Your task to perform on an android device: turn vacation reply on in the gmail app Image 0: 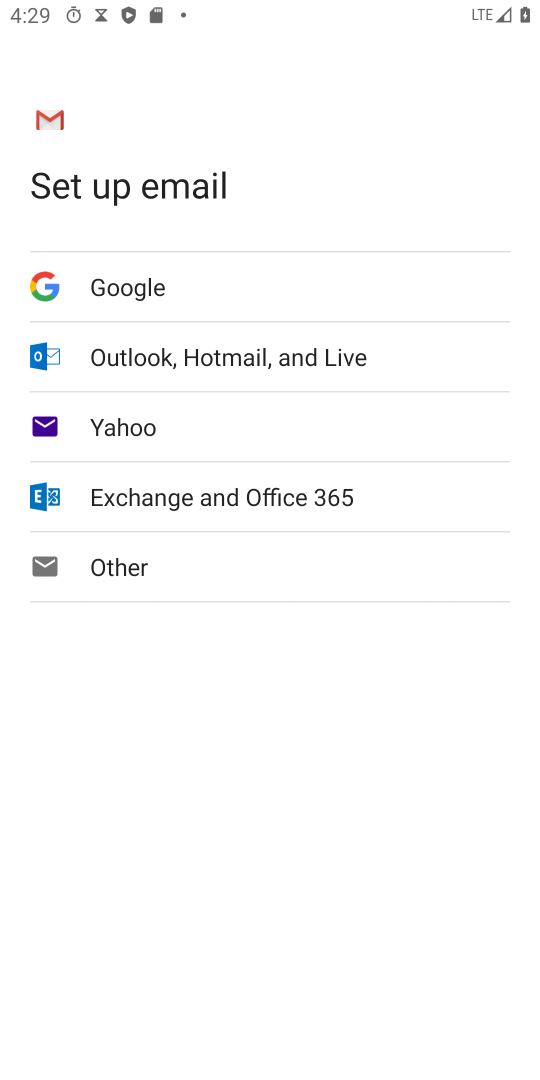
Step 0: press home button
Your task to perform on an android device: turn vacation reply on in the gmail app Image 1: 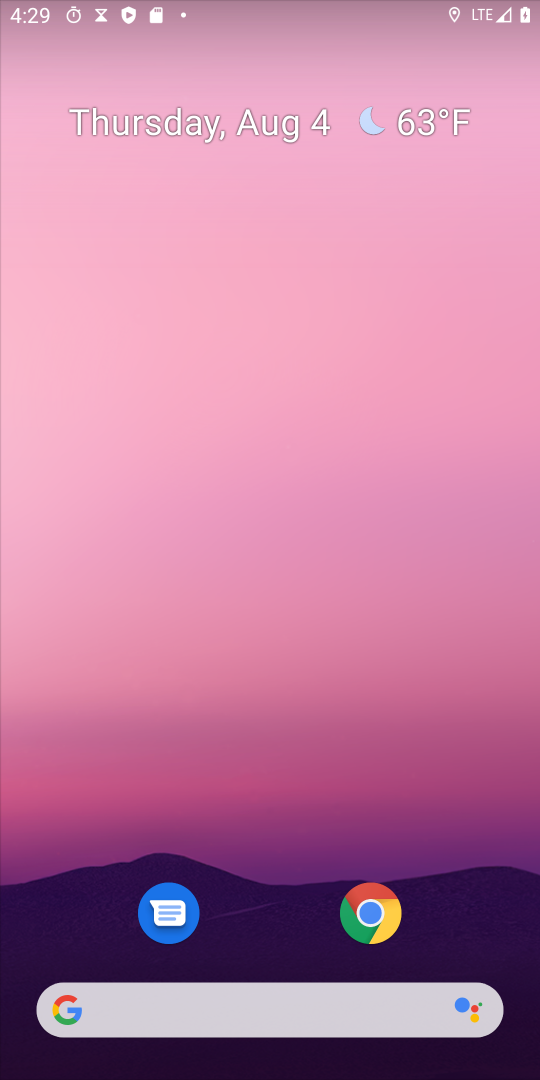
Step 1: drag from (370, 982) to (435, 135)
Your task to perform on an android device: turn vacation reply on in the gmail app Image 2: 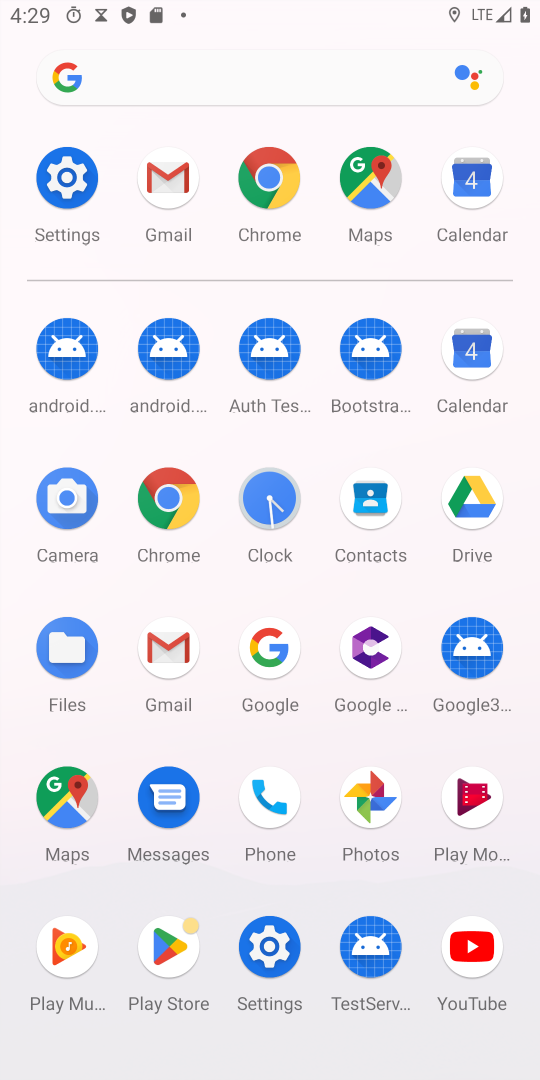
Step 2: click (171, 651)
Your task to perform on an android device: turn vacation reply on in the gmail app Image 3: 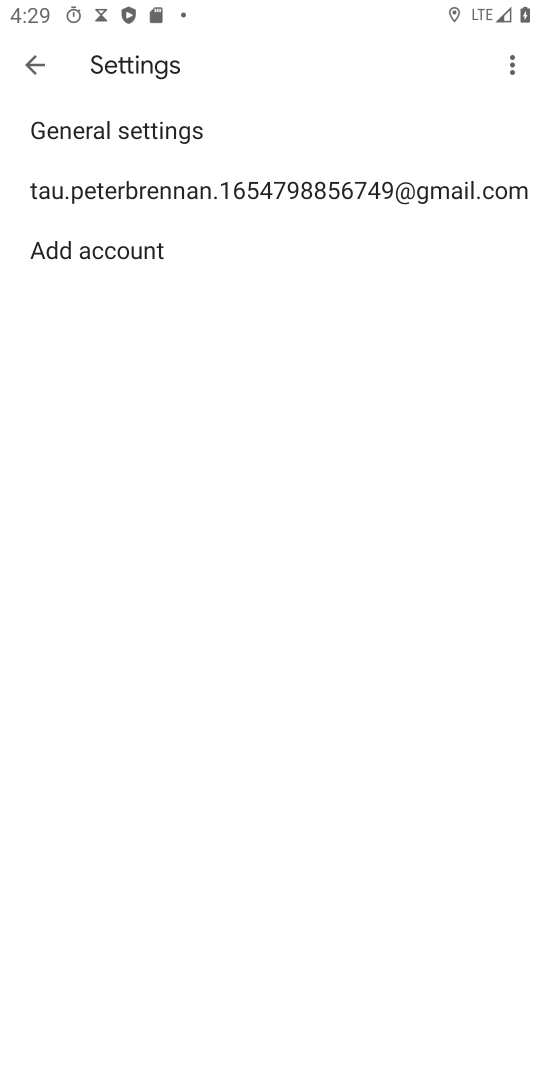
Step 3: click (199, 205)
Your task to perform on an android device: turn vacation reply on in the gmail app Image 4: 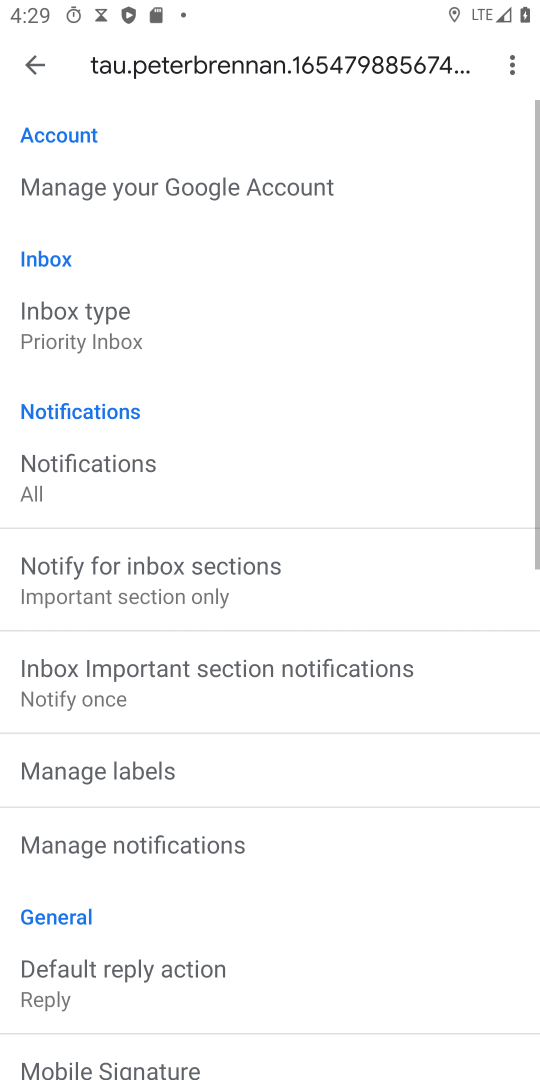
Step 4: drag from (100, 982) to (140, 209)
Your task to perform on an android device: turn vacation reply on in the gmail app Image 5: 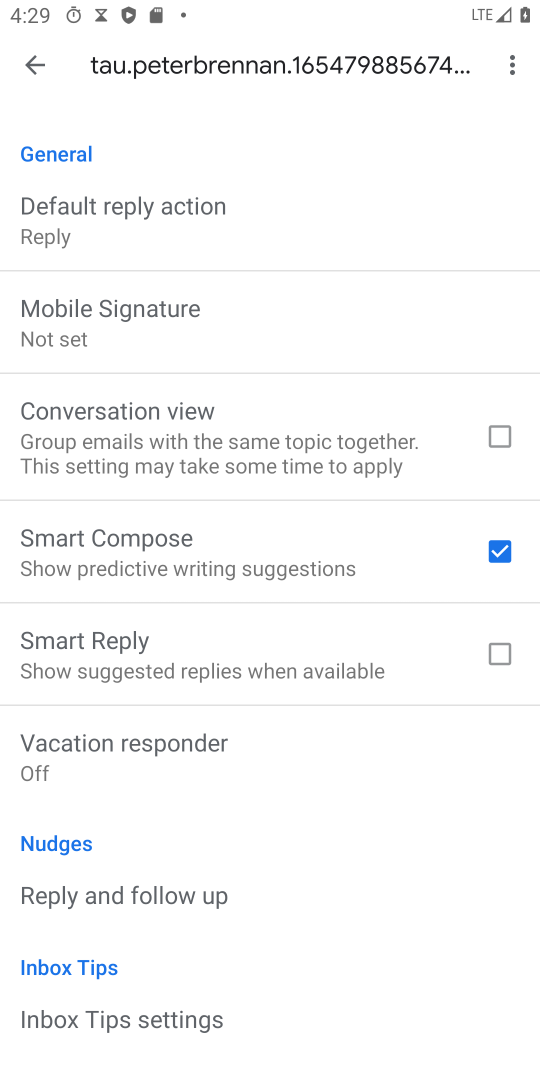
Step 5: click (203, 780)
Your task to perform on an android device: turn vacation reply on in the gmail app Image 6: 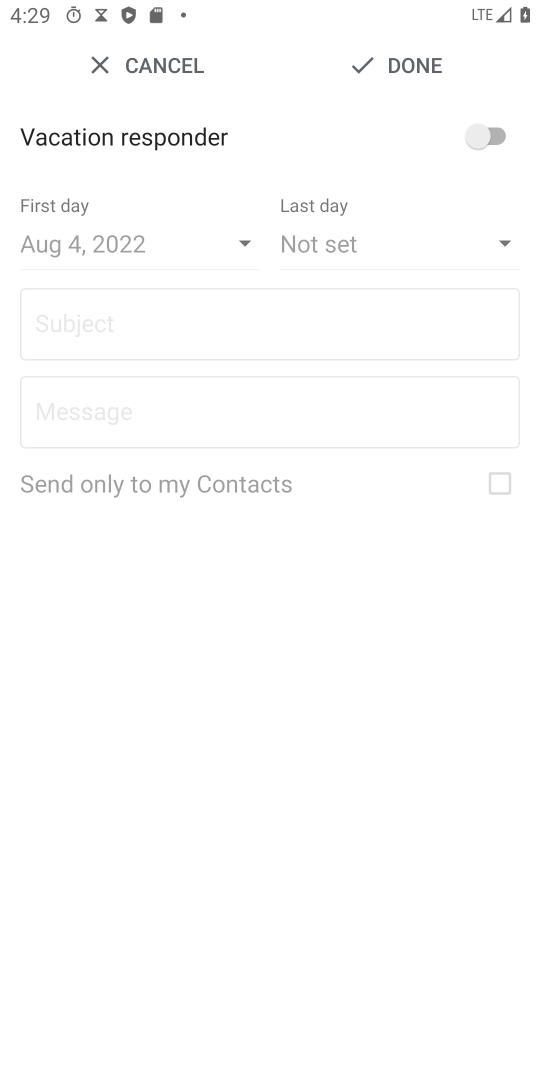
Step 6: click (407, 63)
Your task to perform on an android device: turn vacation reply on in the gmail app Image 7: 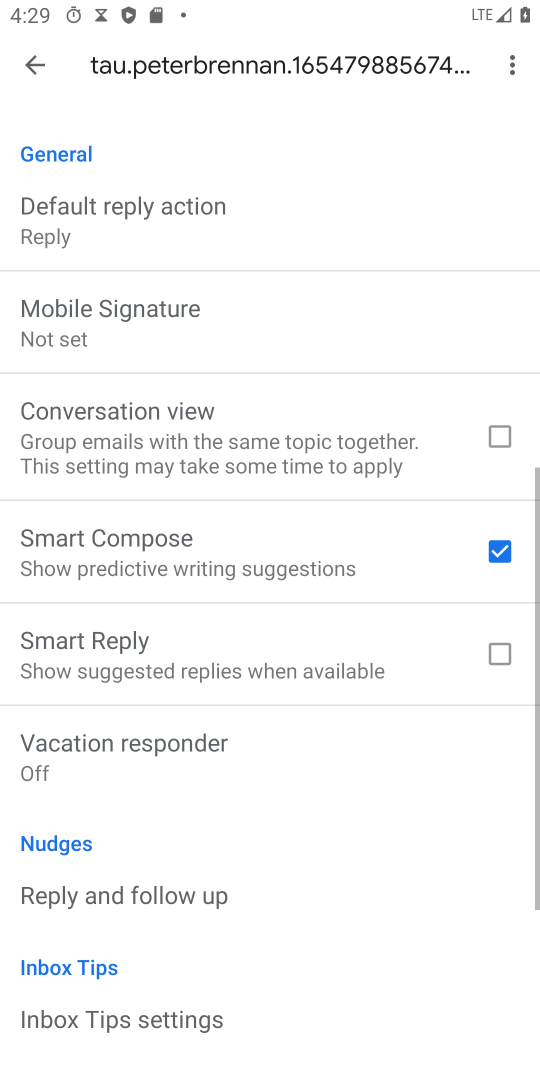
Step 7: task complete